Your task to perform on an android device: toggle airplane mode Image 0: 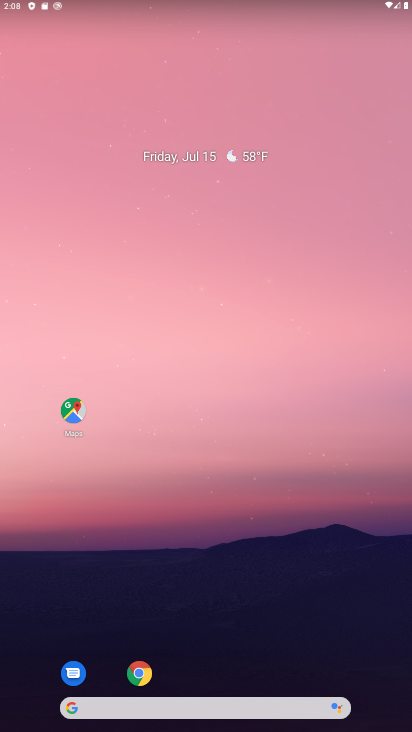
Step 0: drag from (374, 681) to (337, 213)
Your task to perform on an android device: toggle airplane mode Image 1: 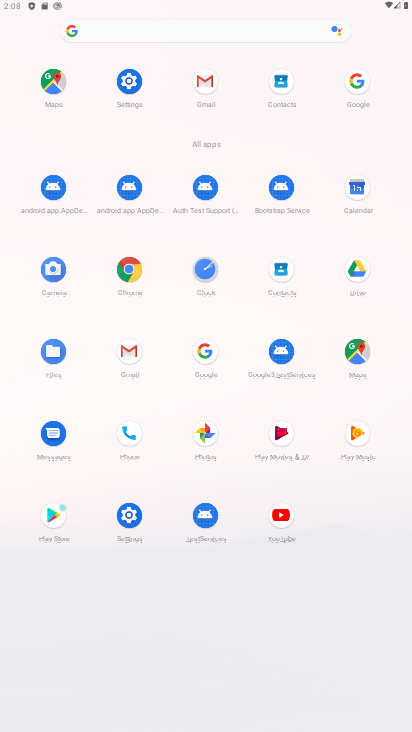
Step 1: click (129, 82)
Your task to perform on an android device: toggle airplane mode Image 2: 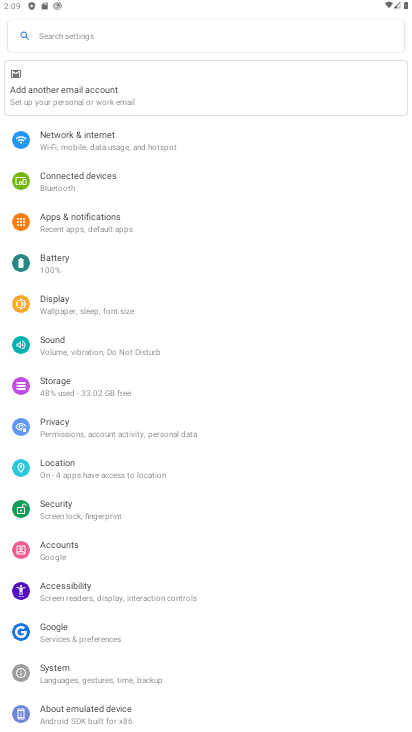
Step 2: click (76, 131)
Your task to perform on an android device: toggle airplane mode Image 3: 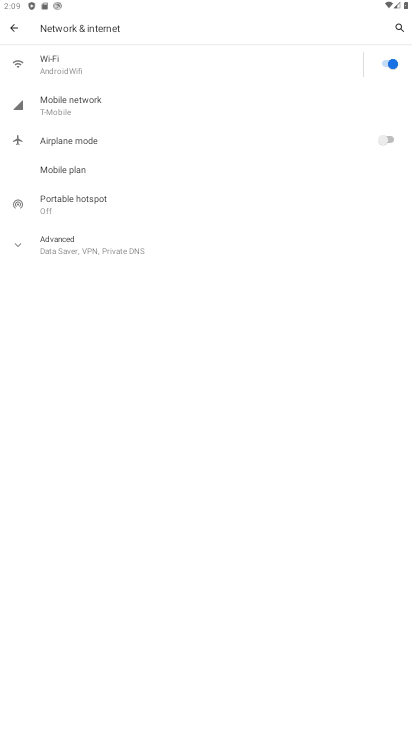
Step 3: click (389, 139)
Your task to perform on an android device: toggle airplane mode Image 4: 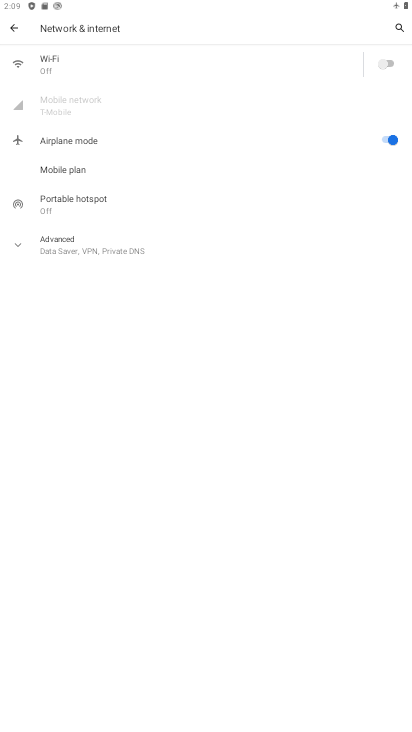
Step 4: task complete